Your task to perform on an android device: What is the news today? Image 0: 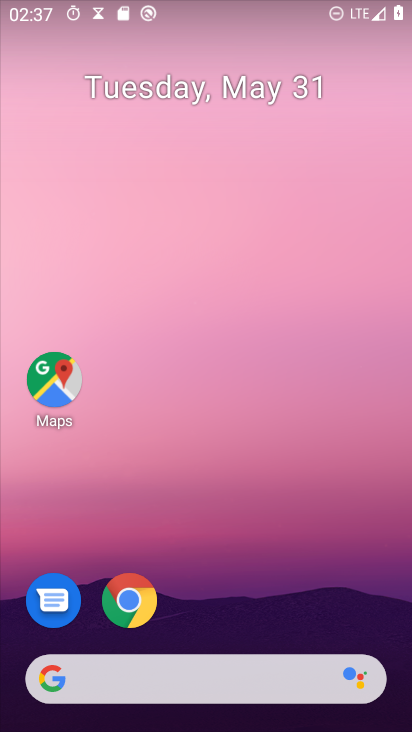
Step 0: drag from (200, 679) to (240, 492)
Your task to perform on an android device: What is the news today? Image 1: 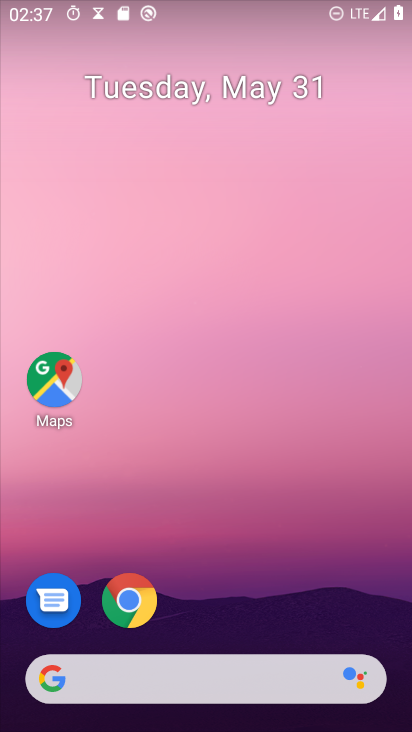
Step 1: task complete